Your task to perform on an android device: turn on wifi Image 0: 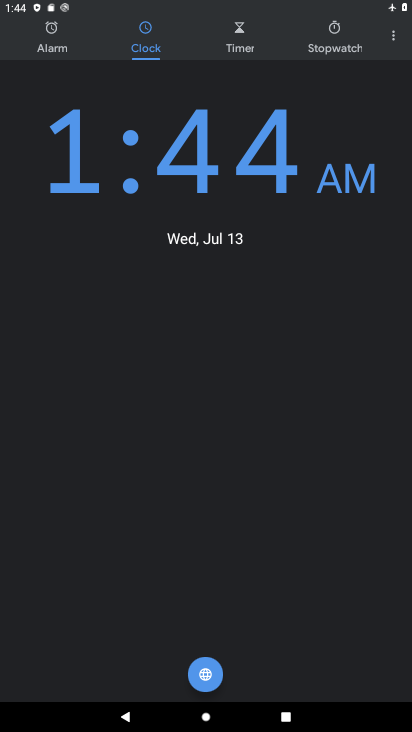
Step 0: drag from (249, 12) to (143, 494)
Your task to perform on an android device: turn on wifi Image 1: 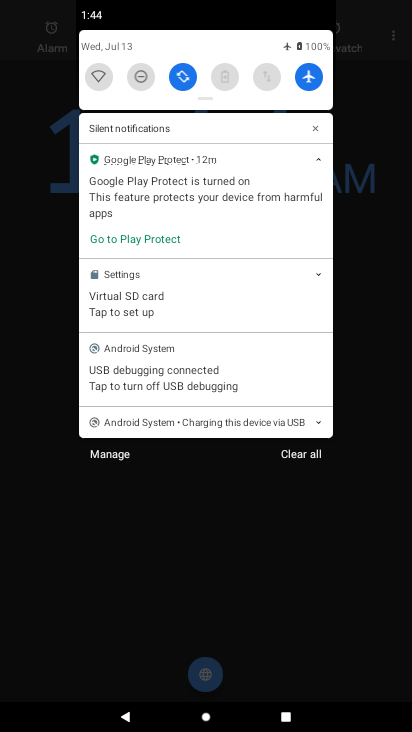
Step 1: click (97, 77)
Your task to perform on an android device: turn on wifi Image 2: 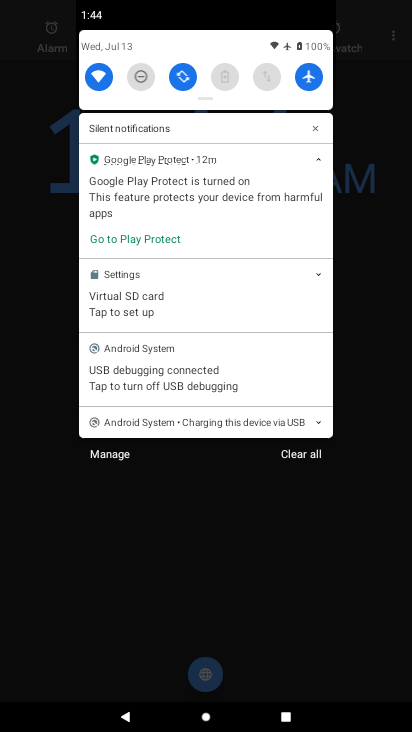
Step 2: task complete